Your task to perform on an android device: Open calendar and show me the third week of next month Image 0: 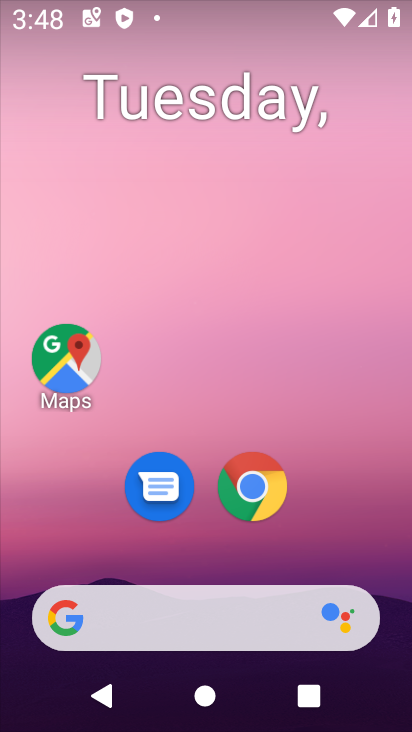
Step 0: drag from (218, 498) to (245, 51)
Your task to perform on an android device: Open calendar and show me the third week of next month Image 1: 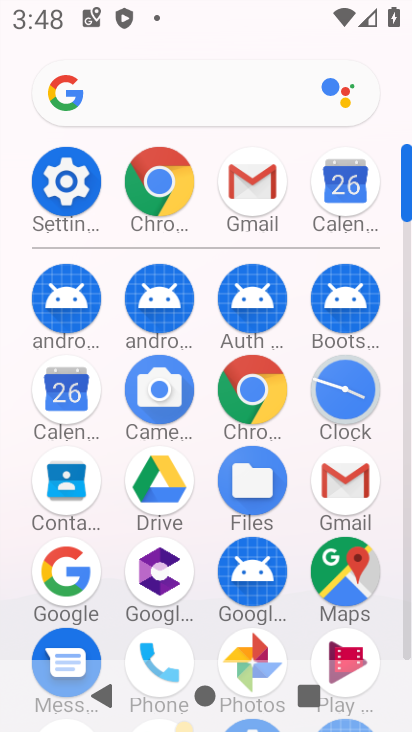
Step 1: click (54, 387)
Your task to perform on an android device: Open calendar and show me the third week of next month Image 2: 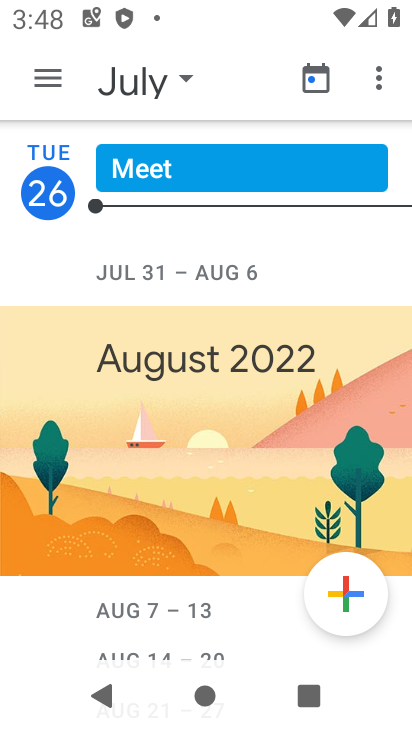
Step 2: click (174, 85)
Your task to perform on an android device: Open calendar and show me the third week of next month Image 3: 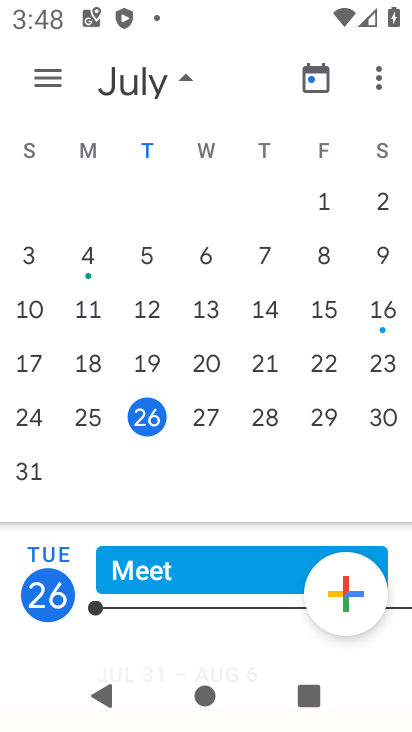
Step 3: drag from (375, 324) to (0, 276)
Your task to perform on an android device: Open calendar and show me the third week of next month Image 4: 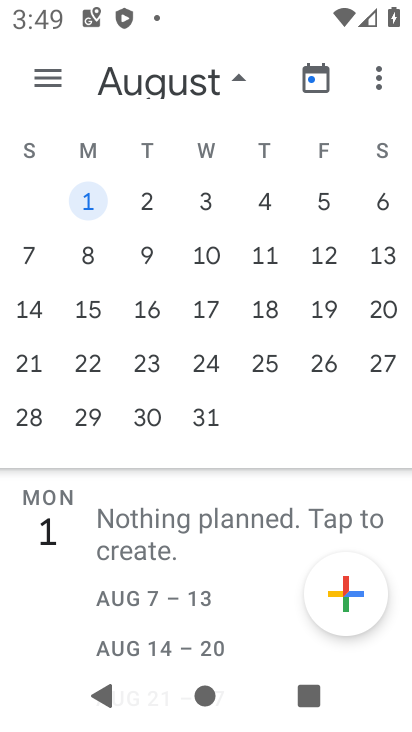
Step 4: click (83, 310)
Your task to perform on an android device: Open calendar and show me the third week of next month Image 5: 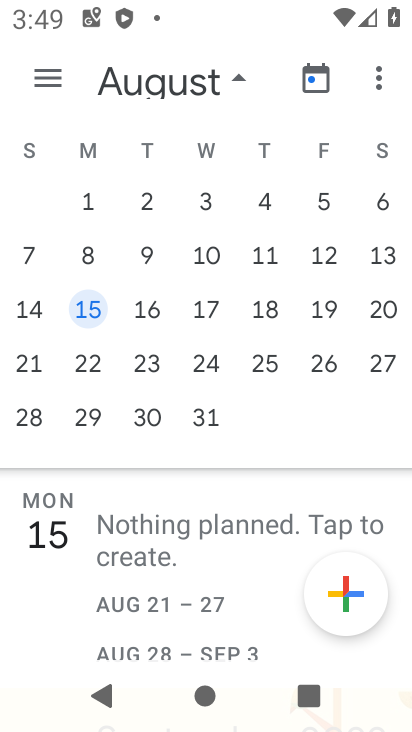
Step 5: task complete